Your task to perform on an android device: turn on translation in the chrome app Image 0: 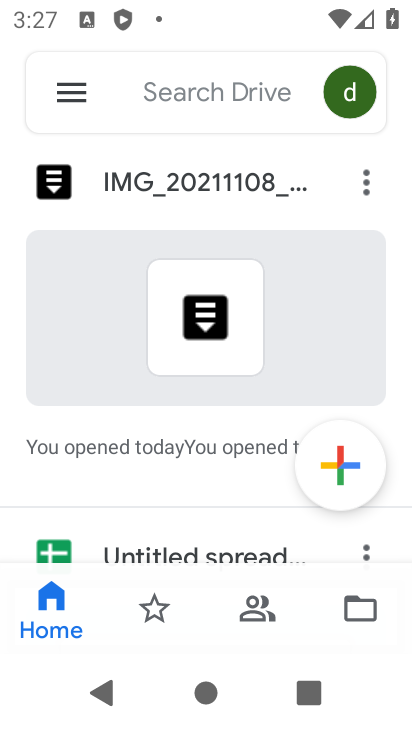
Step 0: task complete